Your task to perform on an android device: Open Google Chrome and open the bookmarks view Image 0: 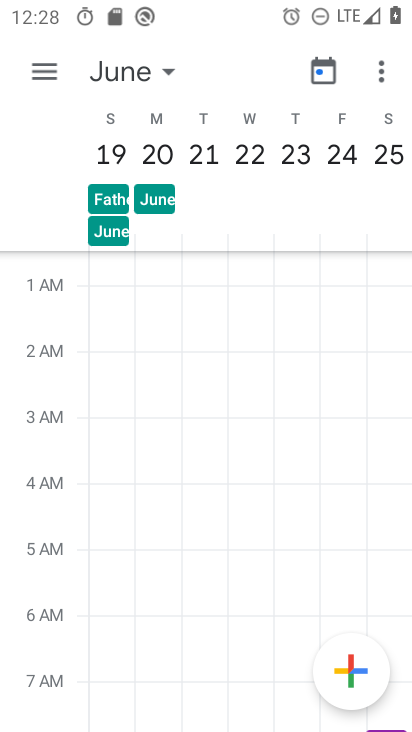
Step 0: press home button
Your task to perform on an android device: Open Google Chrome and open the bookmarks view Image 1: 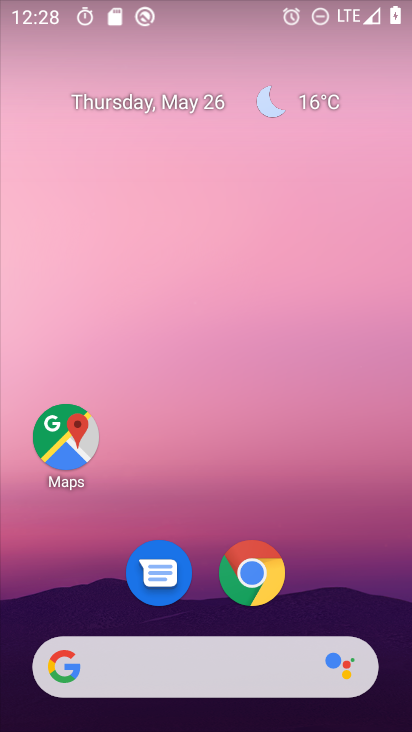
Step 1: click (251, 575)
Your task to perform on an android device: Open Google Chrome and open the bookmarks view Image 2: 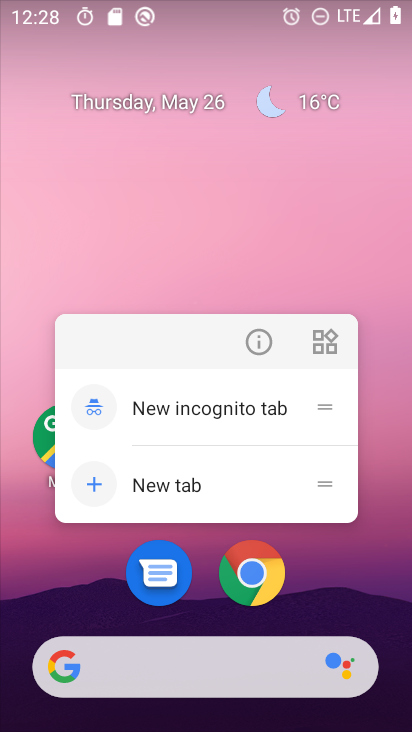
Step 2: click (251, 575)
Your task to perform on an android device: Open Google Chrome and open the bookmarks view Image 3: 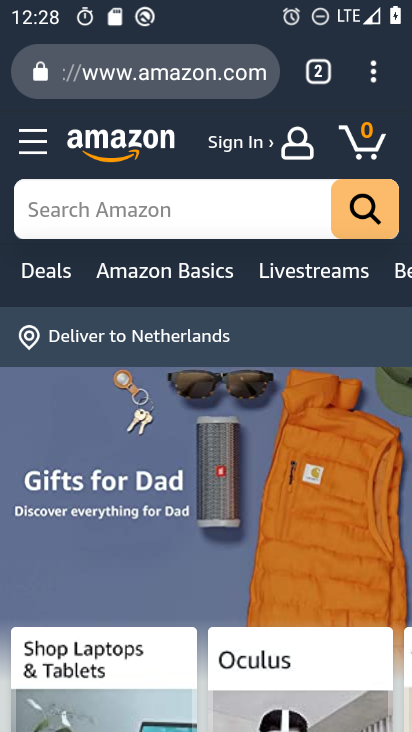
Step 3: click (372, 79)
Your task to perform on an android device: Open Google Chrome and open the bookmarks view Image 4: 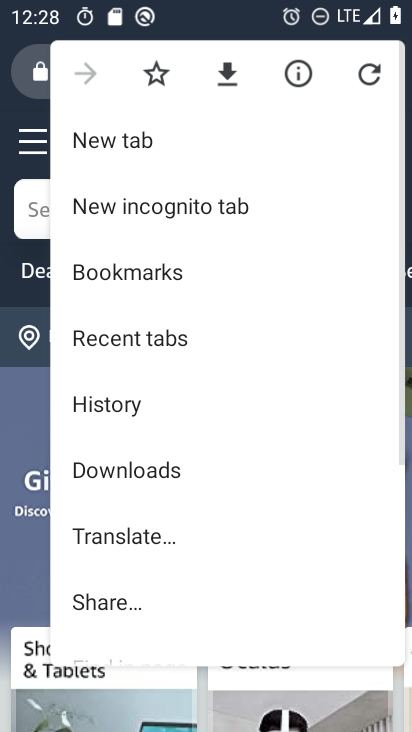
Step 4: click (122, 274)
Your task to perform on an android device: Open Google Chrome and open the bookmarks view Image 5: 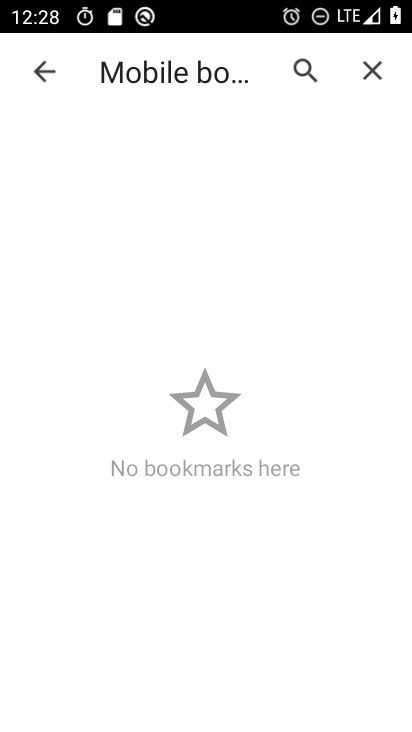
Step 5: task complete